Your task to perform on an android device: Open sound settings Image 0: 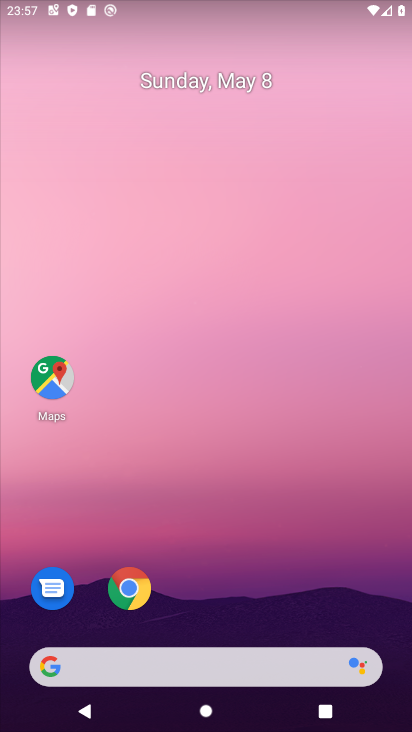
Step 0: drag from (120, 177) to (104, 102)
Your task to perform on an android device: Open sound settings Image 1: 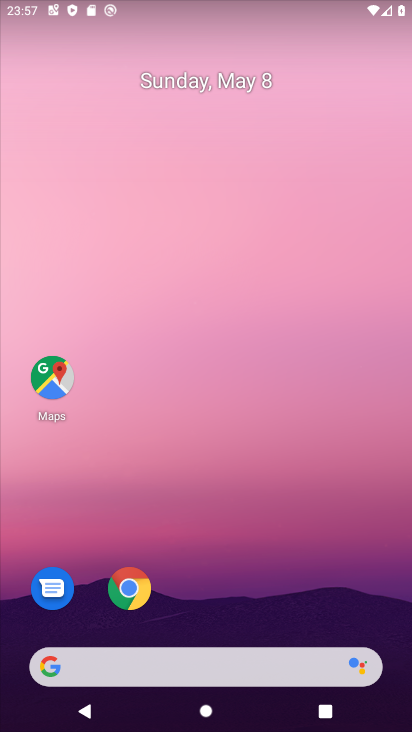
Step 1: drag from (249, 544) to (265, 64)
Your task to perform on an android device: Open sound settings Image 2: 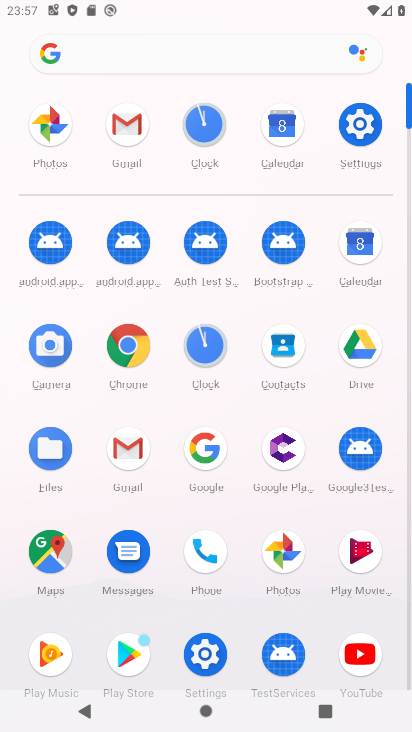
Step 2: click (362, 129)
Your task to perform on an android device: Open sound settings Image 3: 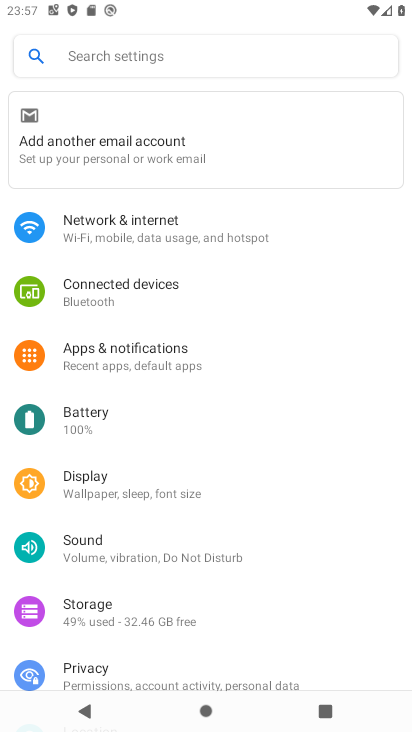
Step 3: click (89, 538)
Your task to perform on an android device: Open sound settings Image 4: 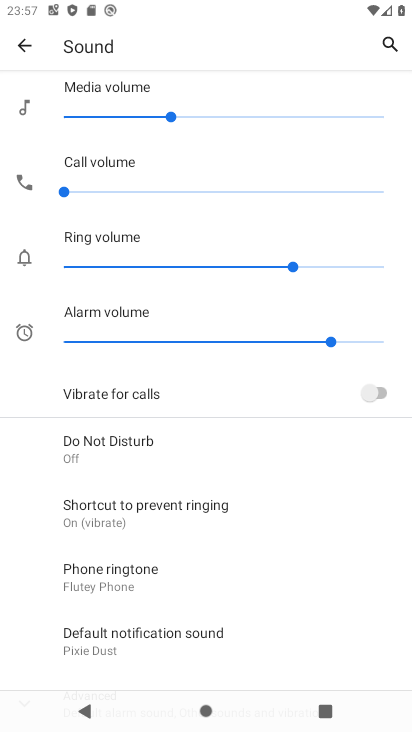
Step 4: task complete